Your task to perform on an android device: What's the weather going to be this weekend? Image 0: 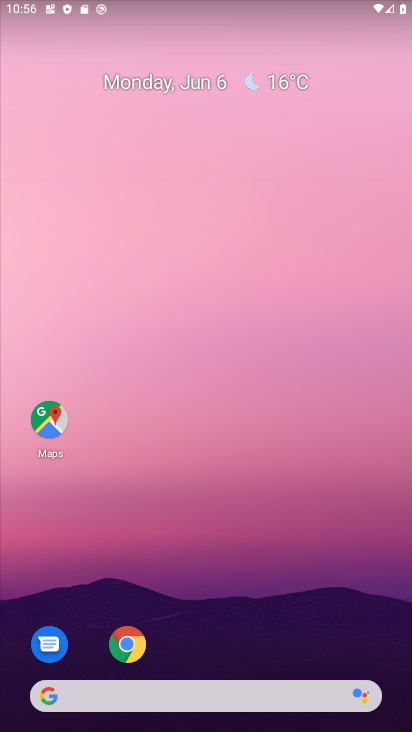
Step 0: drag from (249, 499) to (253, 198)
Your task to perform on an android device: What's the weather going to be this weekend? Image 1: 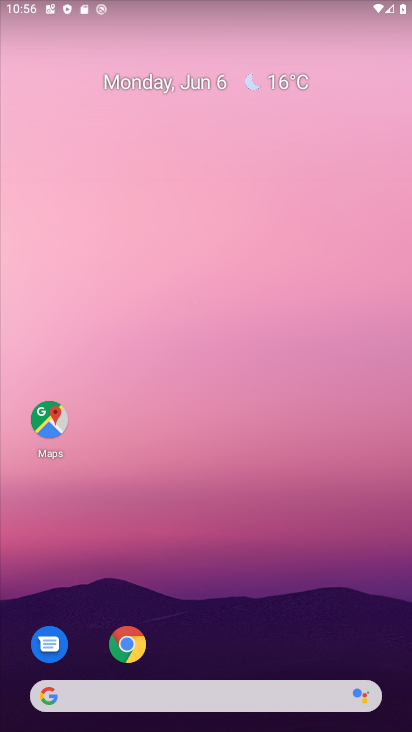
Step 1: drag from (147, 651) to (112, 247)
Your task to perform on an android device: What's the weather going to be this weekend? Image 2: 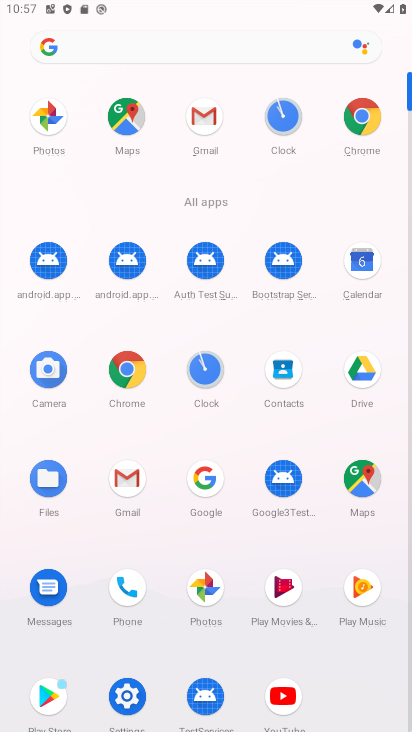
Step 2: drag from (229, 589) to (213, 280)
Your task to perform on an android device: What's the weather going to be this weekend? Image 3: 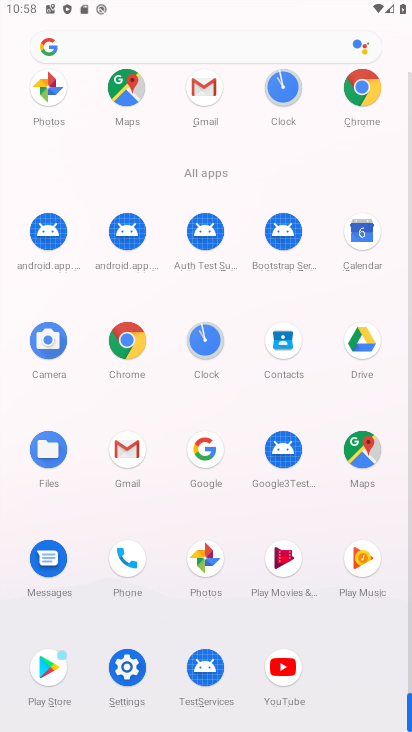
Step 3: click (214, 445)
Your task to perform on an android device: What's the weather going to be this weekend? Image 4: 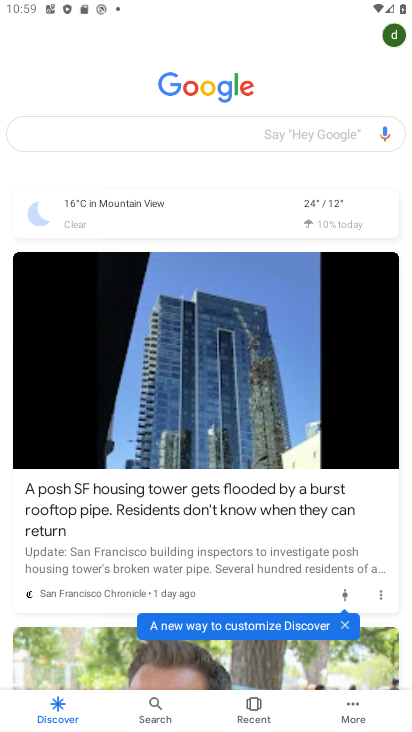
Step 4: click (335, 125)
Your task to perform on an android device: What's the weather going to be this weekend? Image 5: 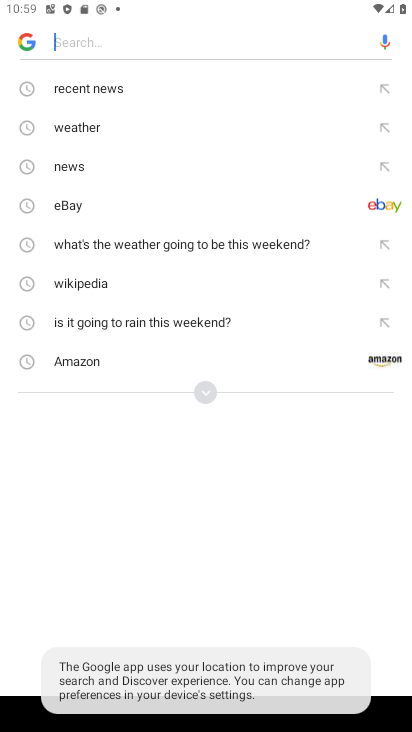
Step 5: click (98, 130)
Your task to perform on an android device: What's the weather going to be this weekend? Image 6: 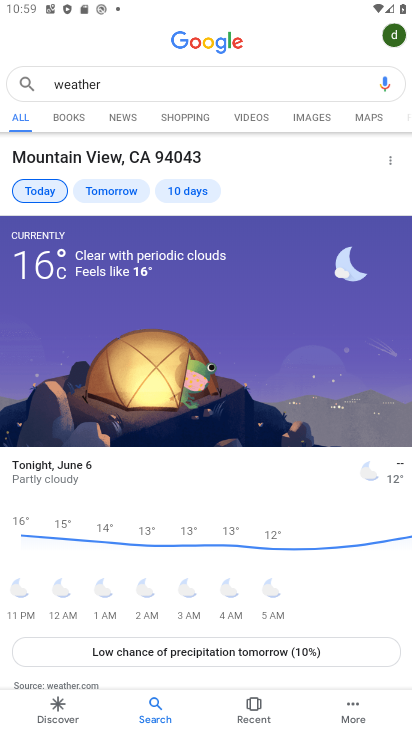
Step 6: click (190, 198)
Your task to perform on an android device: What's the weather going to be this weekend? Image 7: 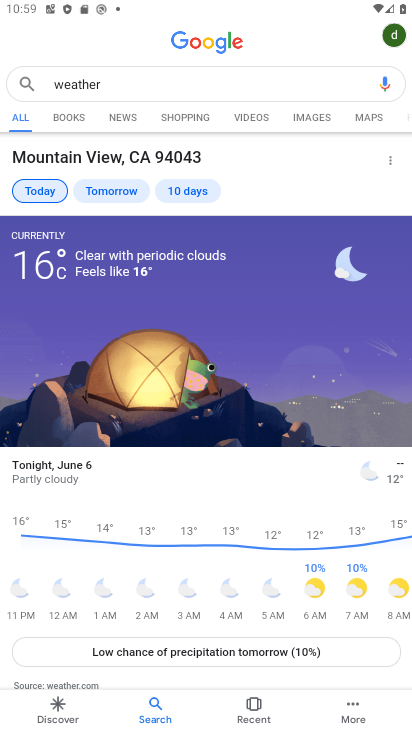
Step 7: click (201, 196)
Your task to perform on an android device: What's the weather going to be this weekend? Image 8: 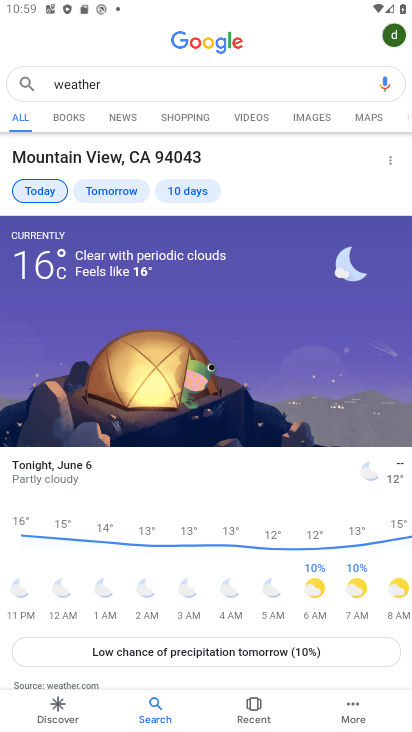
Step 8: click (180, 92)
Your task to perform on an android device: What's the weather going to be this weekend? Image 9: 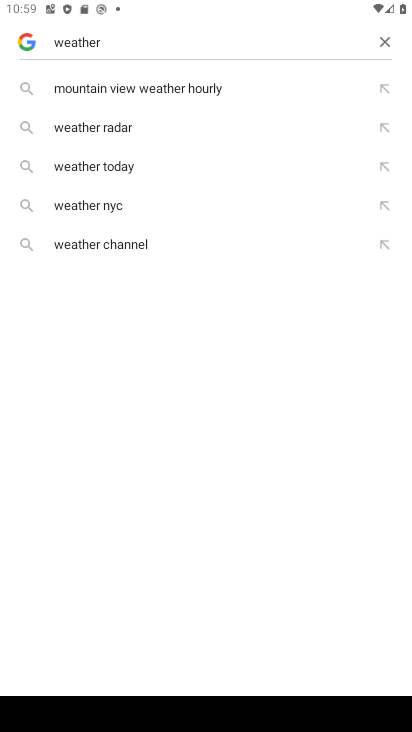
Step 9: type " weekend"
Your task to perform on an android device: What's the weather going to be this weekend? Image 10: 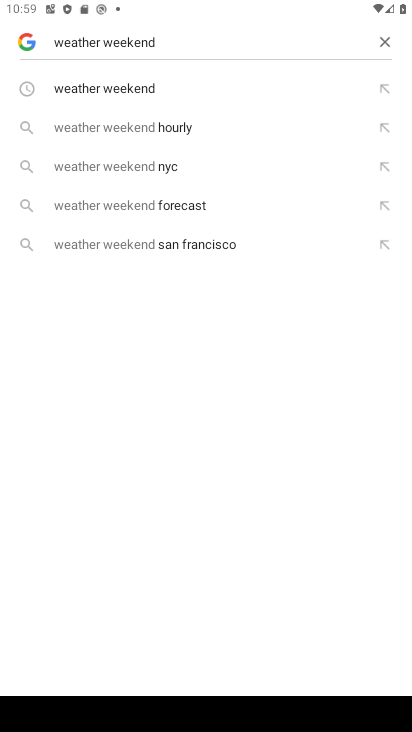
Step 10: click (184, 87)
Your task to perform on an android device: What's the weather going to be this weekend? Image 11: 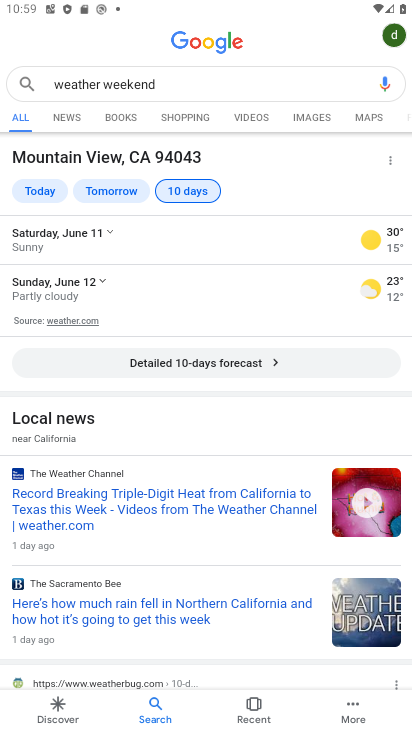
Step 11: task complete